Your task to perform on an android device: uninstall "Flipkart Online Shopping App" Image 0: 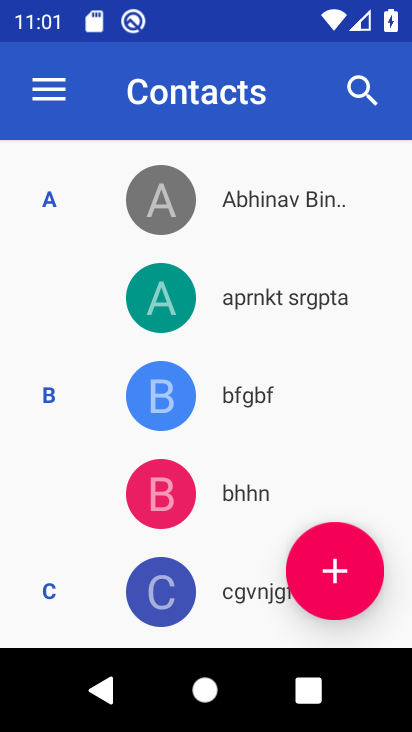
Step 0: press home button
Your task to perform on an android device: uninstall "Flipkart Online Shopping App" Image 1: 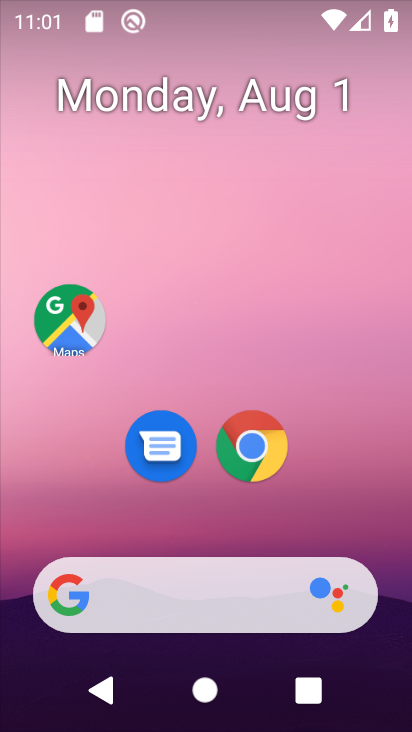
Step 1: drag from (203, 525) to (212, 99)
Your task to perform on an android device: uninstall "Flipkart Online Shopping App" Image 2: 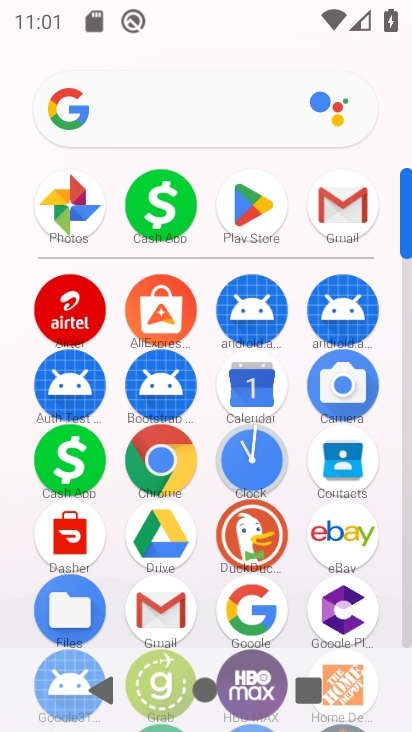
Step 2: click (247, 183)
Your task to perform on an android device: uninstall "Flipkart Online Shopping App" Image 3: 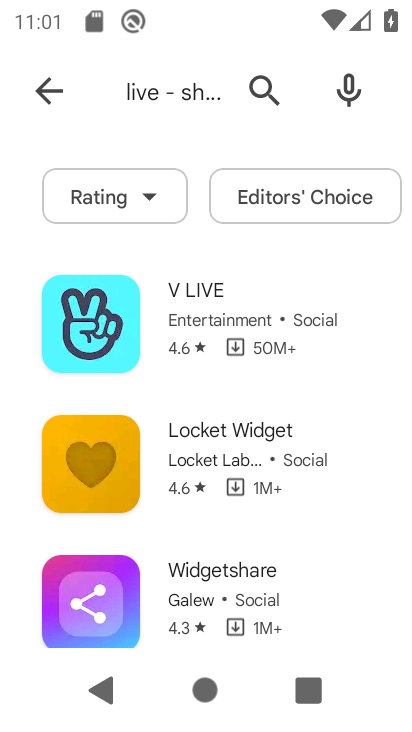
Step 3: click (258, 93)
Your task to perform on an android device: uninstall "Flipkart Online Shopping App" Image 4: 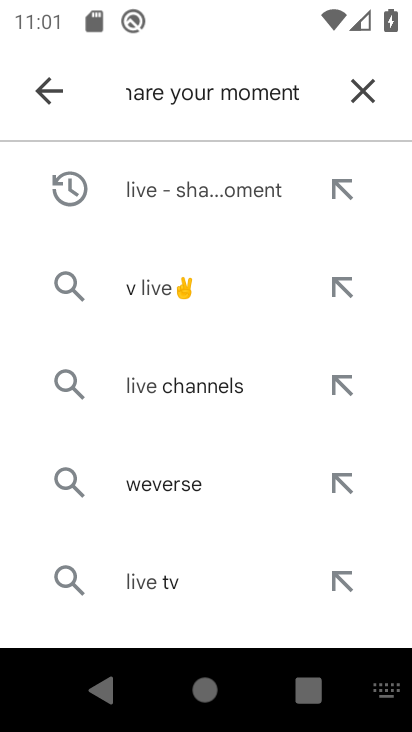
Step 4: click (368, 86)
Your task to perform on an android device: uninstall "Flipkart Online Shopping App" Image 5: 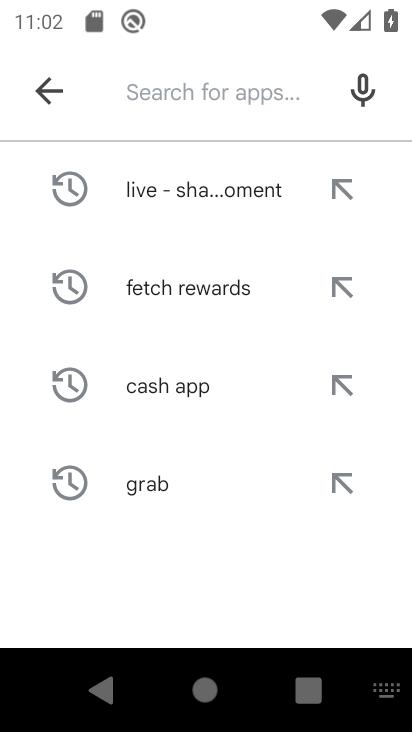
Step 5: type "Flipkart Online Shopping App"
Your task to perform on an android device: uninstall "Flipkart Online Shopping App" Image 6: 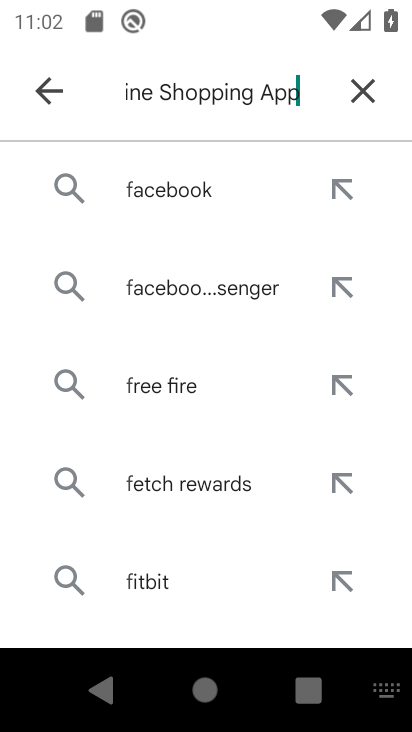
Step 6: type ""
Your task to perform on an android device: uninstall "Flipkart Online Shopping App" Image 7: 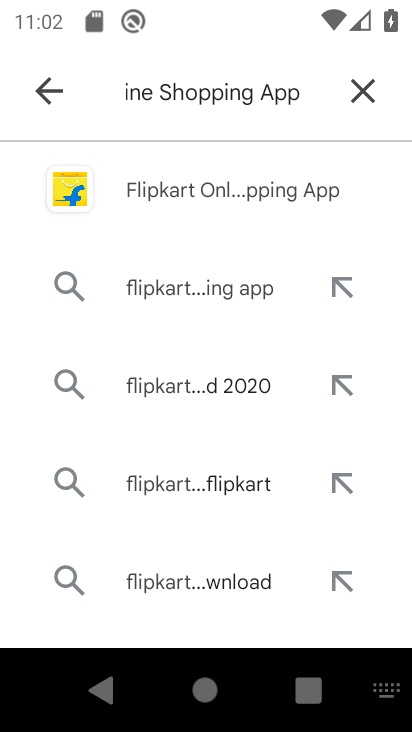
Step 7: click (181, 205)
Your task to perform on an android device: uninstall "Flipkart Online Shopping App" Image 8: 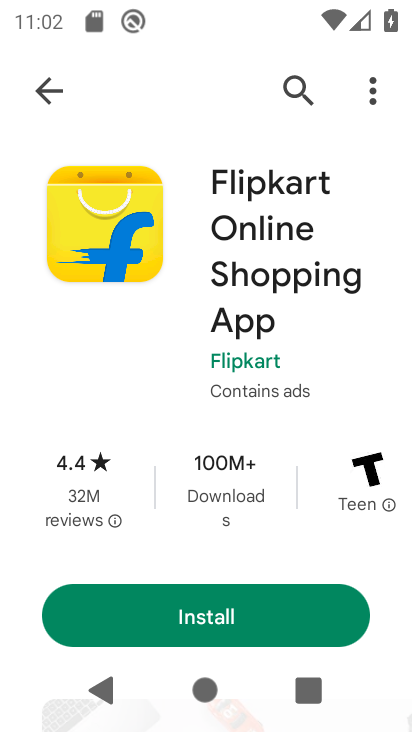
Step 8: task complete